Your task to perform on an android device: Open Youtube and go to "Your channel" Image 0: 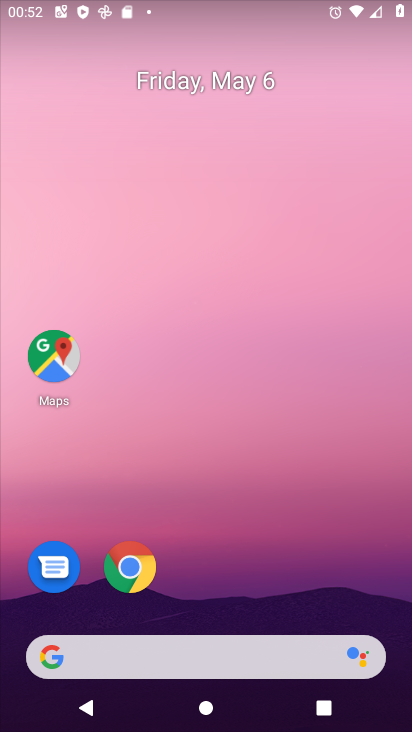
Step 0: drag from (202, 585) to (167, 168)
Your task to perform on an android device: Open Youtube and go to "Your channel" Image 1: 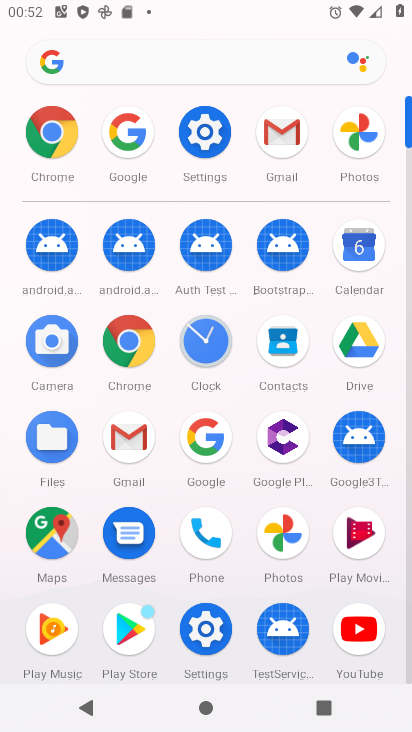
Step 1: click (379, 628)
Your task to perform on an android device: Open Youtube and go to "Your channel" Image 2: 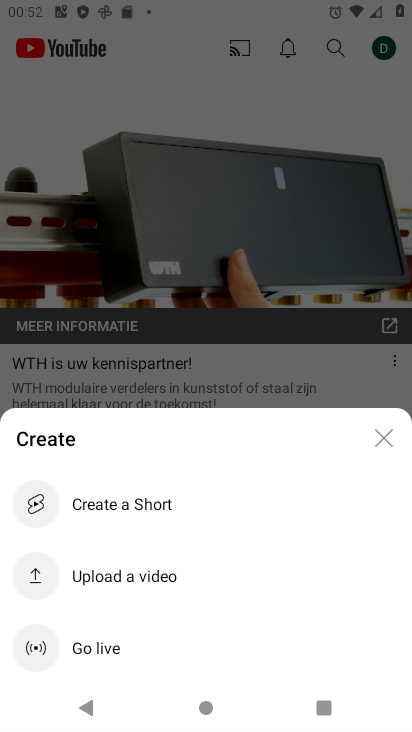
Step 2: click (378, 425)
Your task to perform on an android device: Open Youtube and go to "Your channel" Image 3: 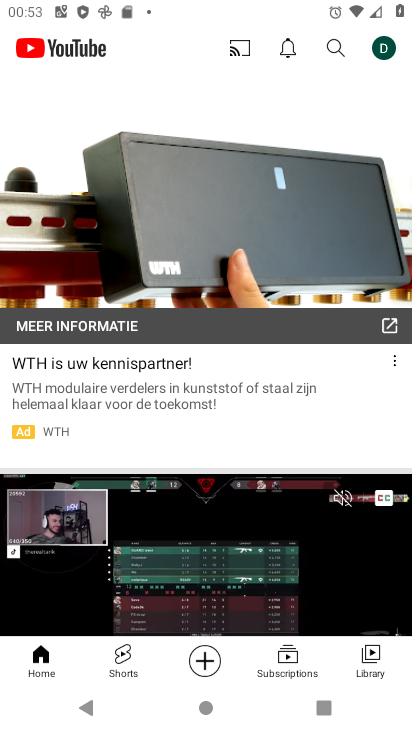
Step 3: click (394, 50)
Your task to perform on an android device: Open Youtube and go to "Your channel" Image 4: 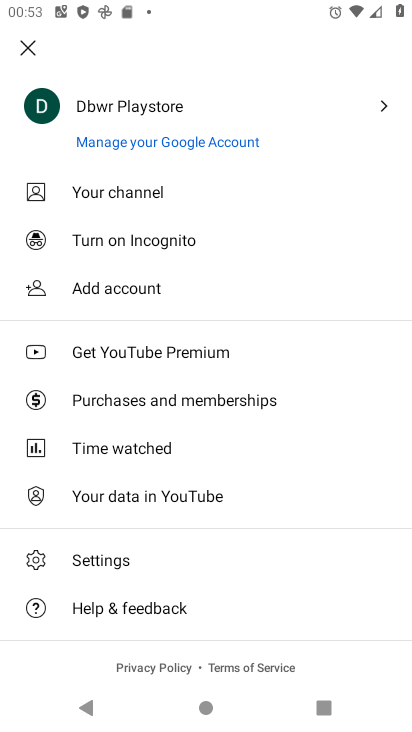
Step 4: click (144, 184)
Your task to perform on an android device: Open Youtube and go to "Your channel" Image 5: 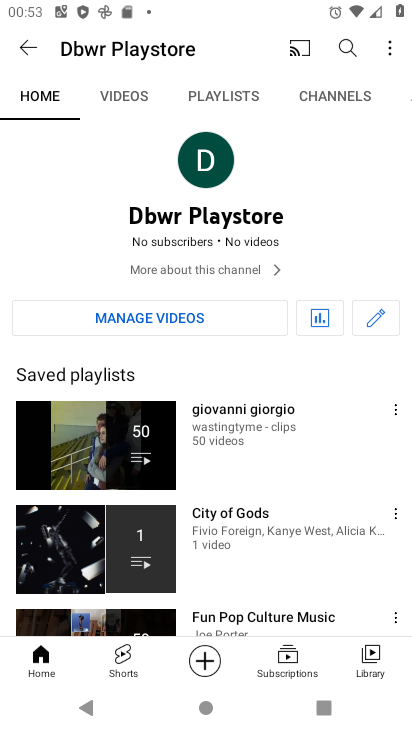
Step 5: task complete